Your task to perform on an android device: Open the stopwatch Image 0: 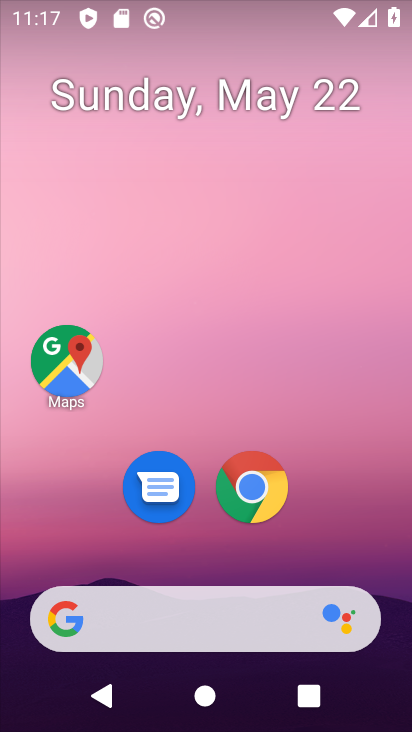
Step 0: press home button
Your task to perform on an android device: Open the stopwatch Image 1: 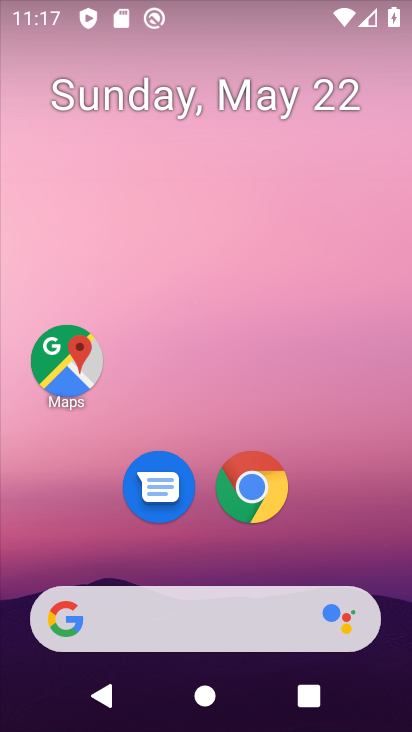
Step 1: drag from (305, 482) to (336, 189)
Your task to perform on an android device: Open the stopwatch Image 2: 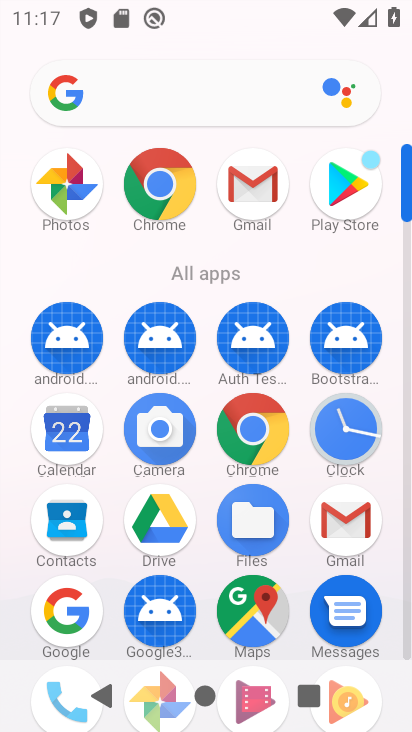
Step 2: click (349, 432)
Your task to perform on an android device: Open the stopwatch Image 3: 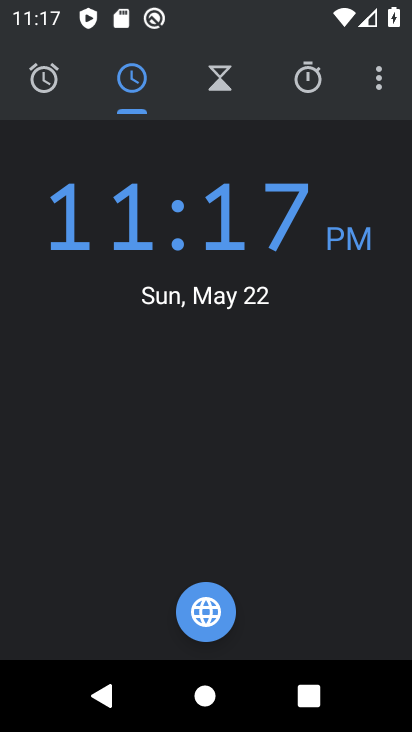
Step 3: click (306, 79)
Your task to perform on an android device: Open the stopwatch Image 4: 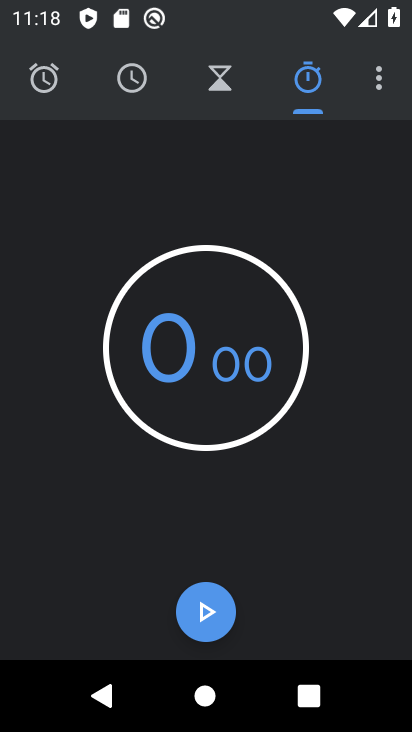
Step 4: click (211, 620)
Your task to perform on an android device: Open the stopwatch Image 5: 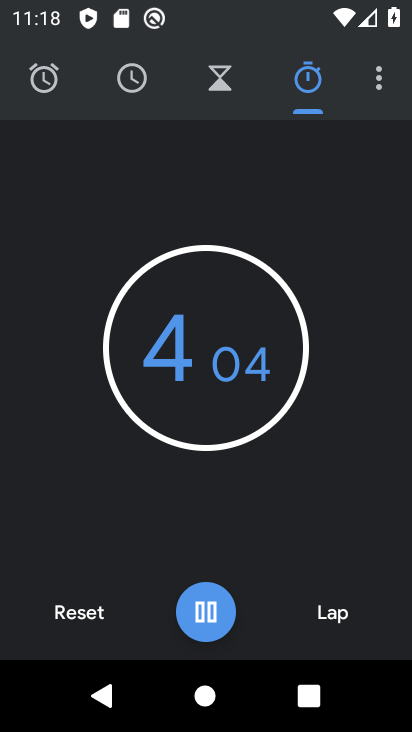
Step 5: click (210, 620)
Your task to perform on an android device: Open the stopwatch Image 6: 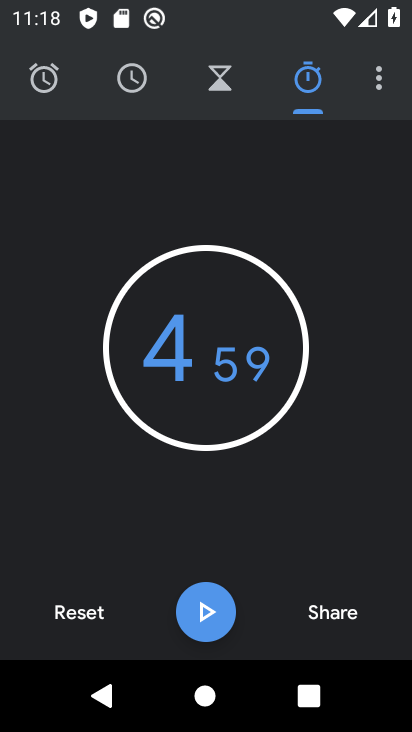
Step 6: task complete